Your task to perform on an android device: Open calendar and show me the fourth week of next month Image 0: 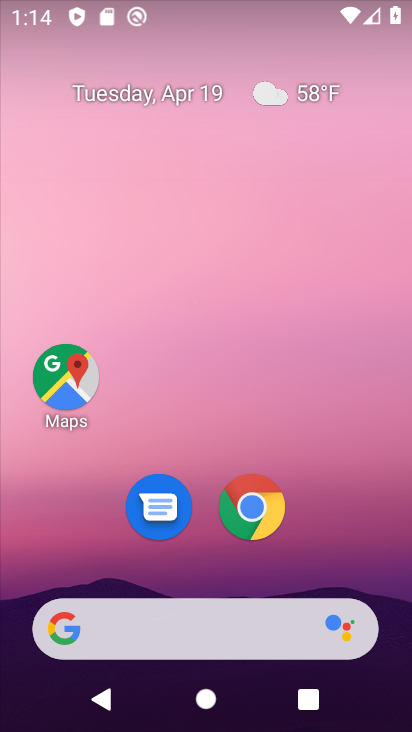
Step 0: drag from (200, 538) to (203, 175)
Your task to perform on an android device: Open calendar and show me the fourth week of next month Image 1: 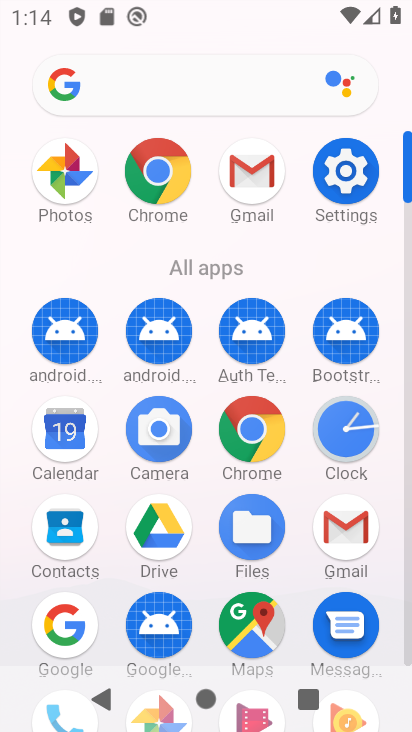
Step 1: click (61, 430)
Your task to perform on an android device: Open calendar and show me the fourth week of next month Image 2: 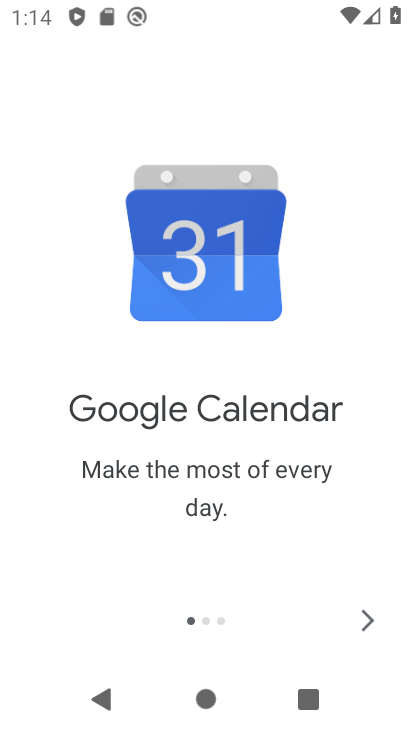
Step 2: click (352, 613)
Your task to perform on an android device: Open calendar and show me the fourth week of next month Image 3: 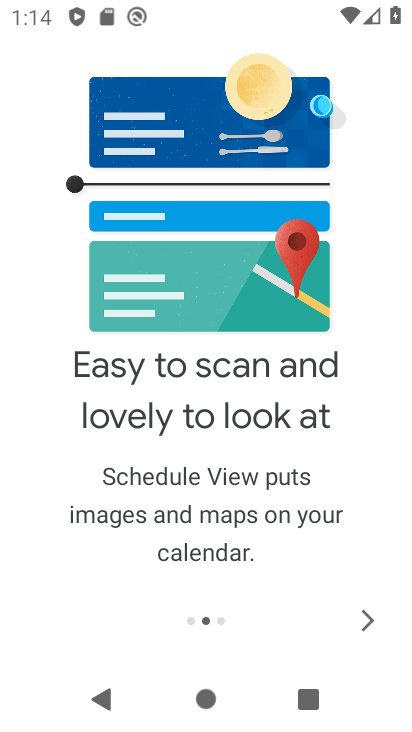
Step 3: click (352, 612)
Your task to perform on an android device: Open calendar and show me the fourth week of next month Image 4: 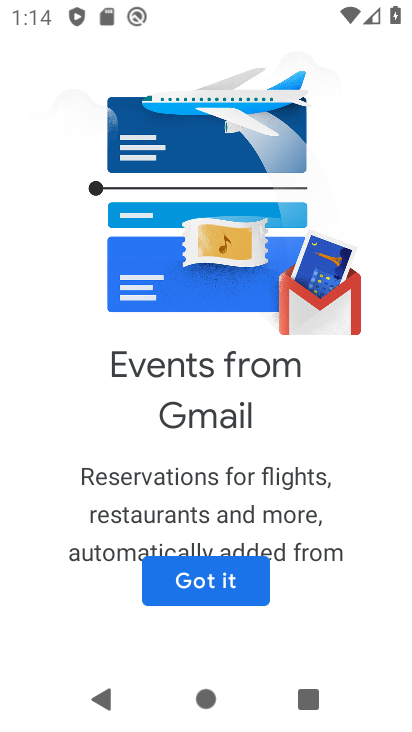
Step 4: click (223, 582)
Your task to perform on an android device: Open calendar and show me the fourth week of next month Image 5: 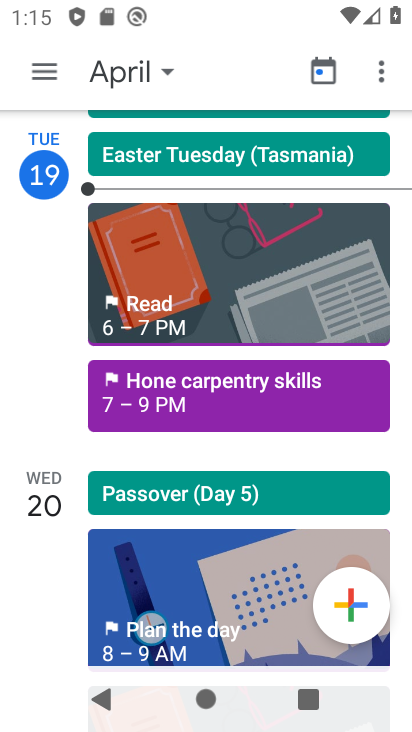
Step 5: click (157, 69)
Your task to perform on an android device: Open calendar and show me the fourth week of next month Image 6: 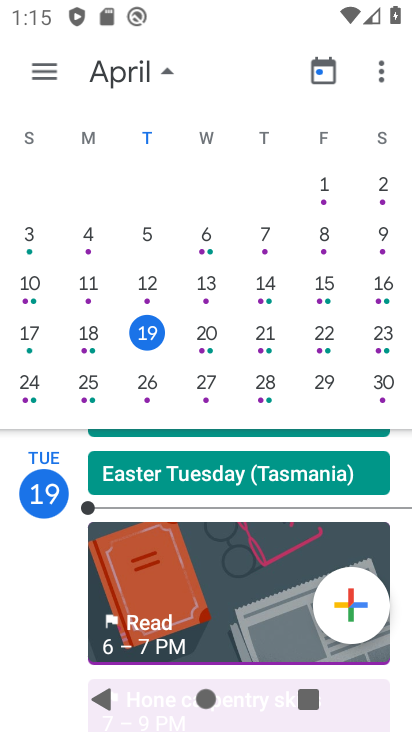
Step 6: drag from (360, 393) to (8, 394)
Your task to perform on an android device: Open calendar and show me the fourth week of next month Image 7: 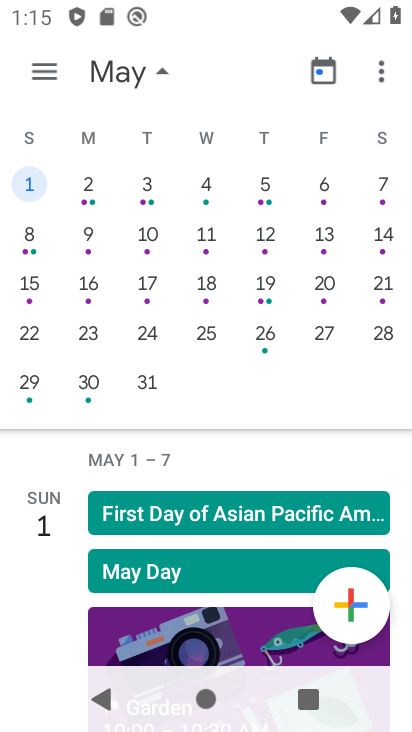
Step 7: click (207, 337)
Your task to perform on an android device: Open calendar and show me the fourth week of next month Image 8: 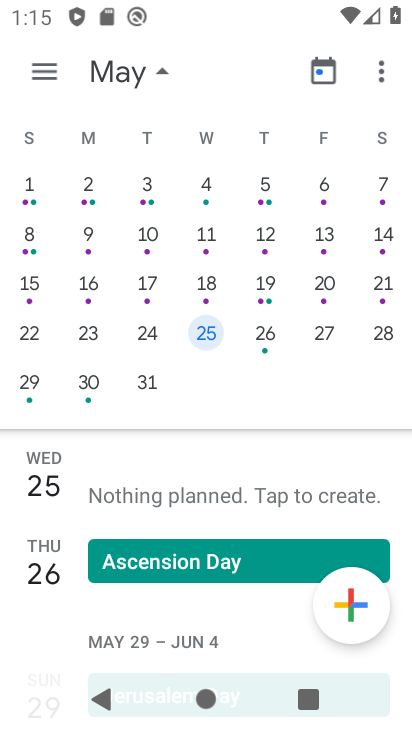
Step 8: task complete